Your task to perform on an android device: Search for Mexican restaurants on Maps Image 0: 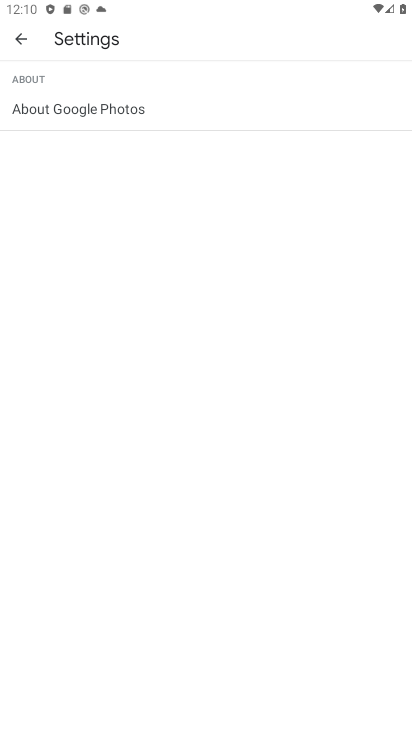
Step 0: press home button
Your task to perform on an android device: Search for Mexican restaurants on Maps Image 1: 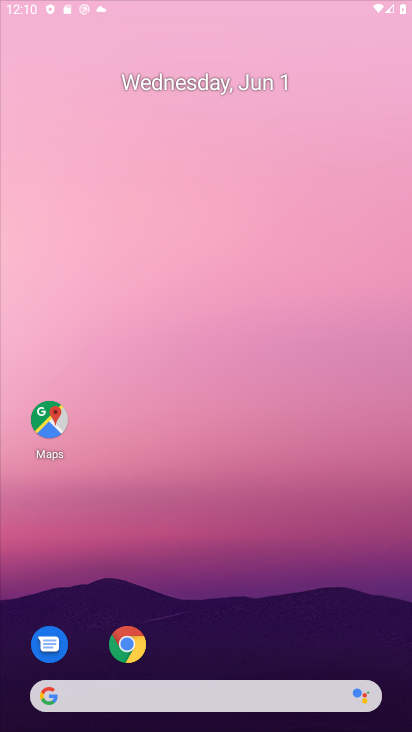
Step 1: drag from (386, 592) to (376, 226)
Your task to perform on an android device: Search for Mexican restaurants on Maps Image 2: 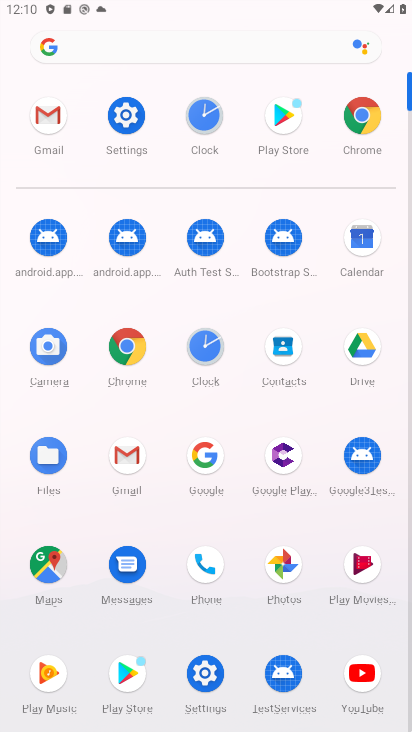
Step 2: click (44, 584)
Your task to perform on an android device: Search for Mexican restaurants on Maps Image 3: 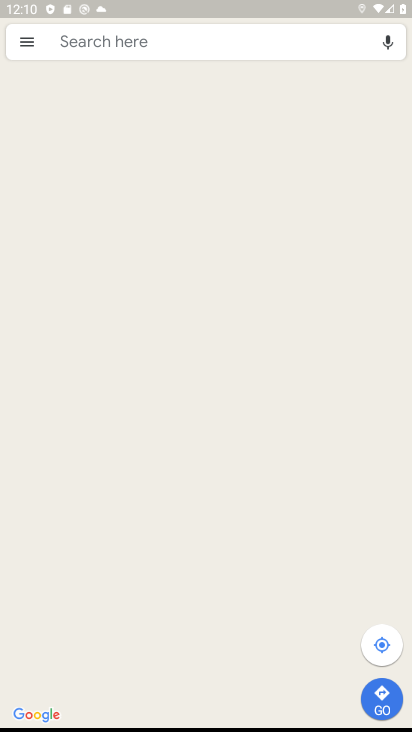
Step 3: click (134, 39)
Your task to perform on an android device: Search for Mexican restaurants on Maps Image 4: 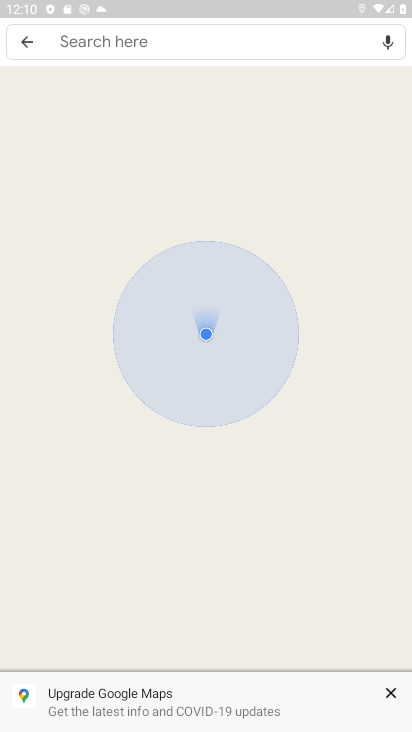
Step 4: click (173, 49)
Your task to perform on an android device: Search for Mexican restaurants on Maps Image 5: 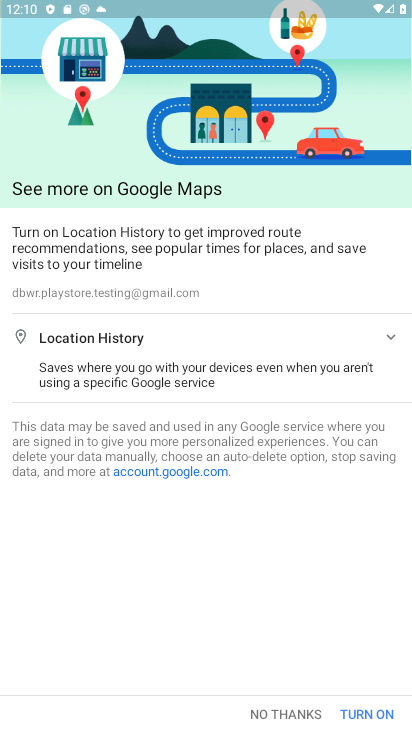
Step 5: click (302, 704)
Your task to perform on an android device: Search for Mexican restaurants on Maps Image 6: 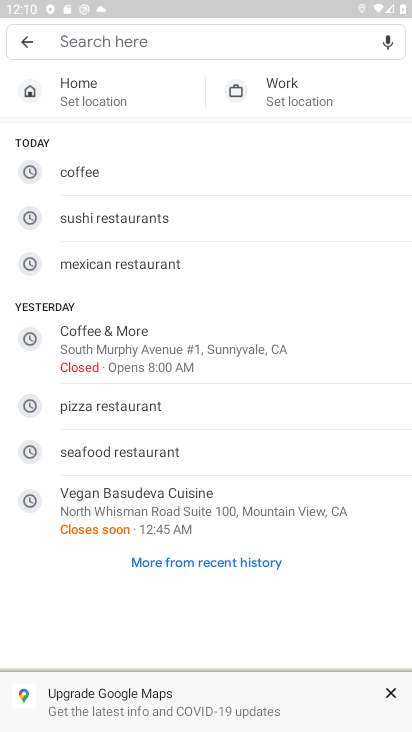
Step 6: click (161, 39)
Your task to perform on an android device: Search for Mexican restaurants on Maps Image 7: 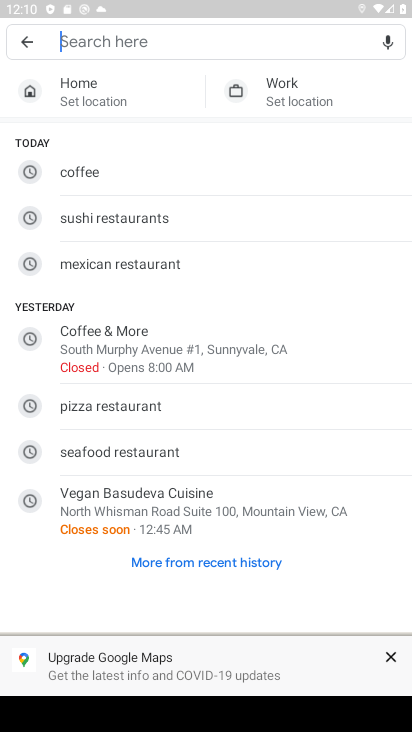
Step 7: type "mexican restaurants "
Your task to perform on an android device: Search for Mexican restaurants on Maps Image 8: 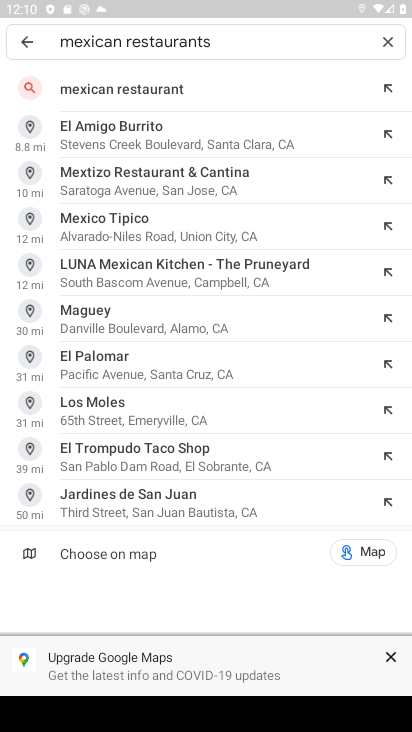
Step 8: click (192, 84)
Your task to perform on an android device: Search for Mexican restaurants on Maps Image 9: 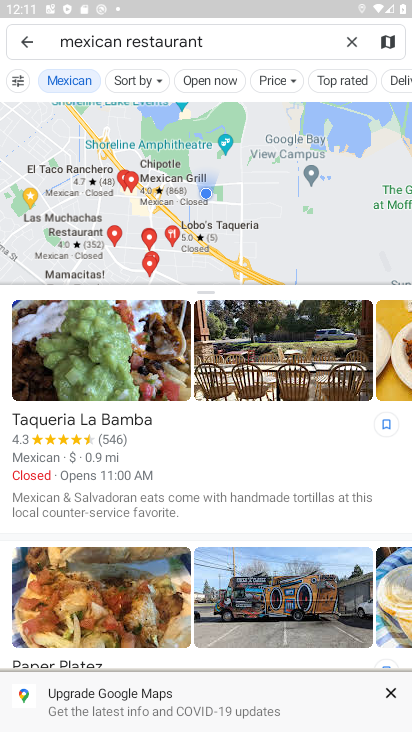
Step 9: task complete